Your task to perform on an android device: How do I get to the nearest Apple Store? Image 0: 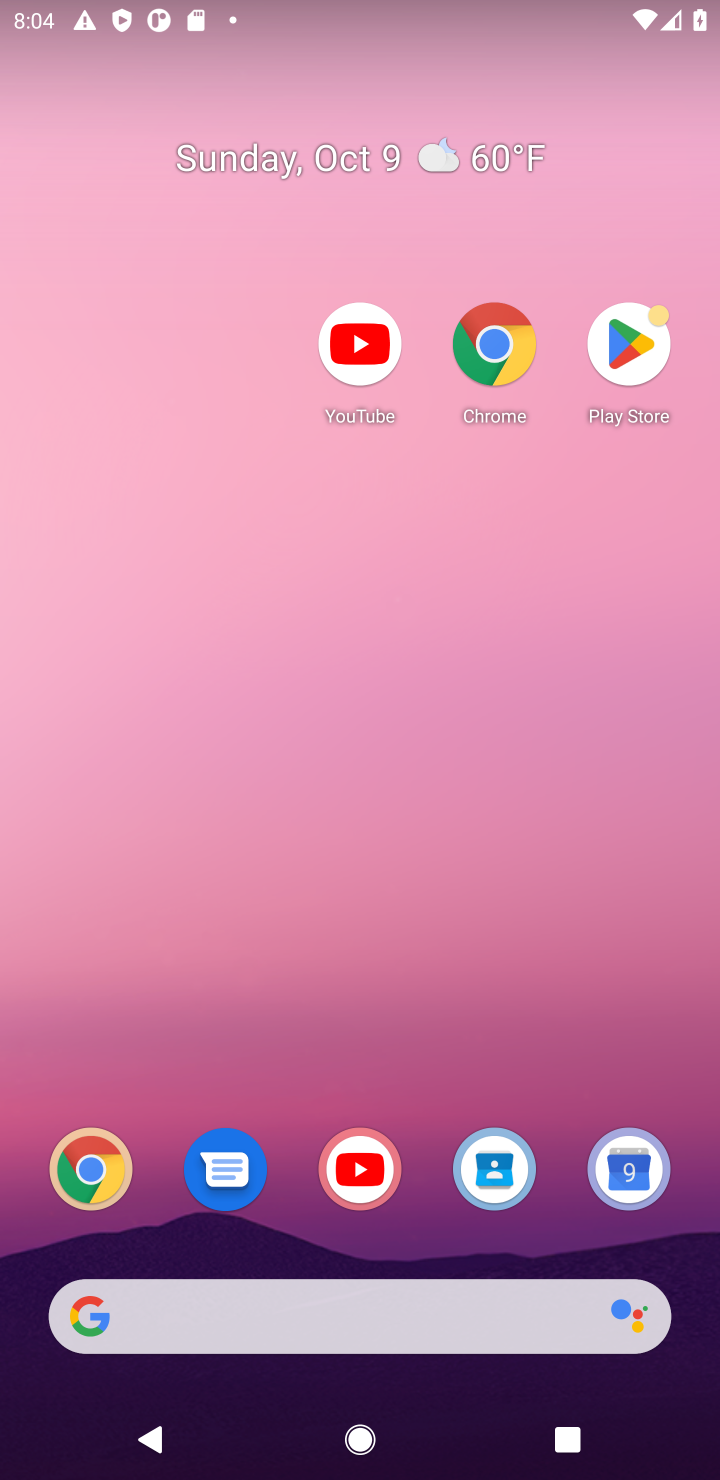
Step 0: drag from (420, 1201) to (460, 209)
Your task to perform on an android device: How do I get to the nearest Apple Store? Image 1: 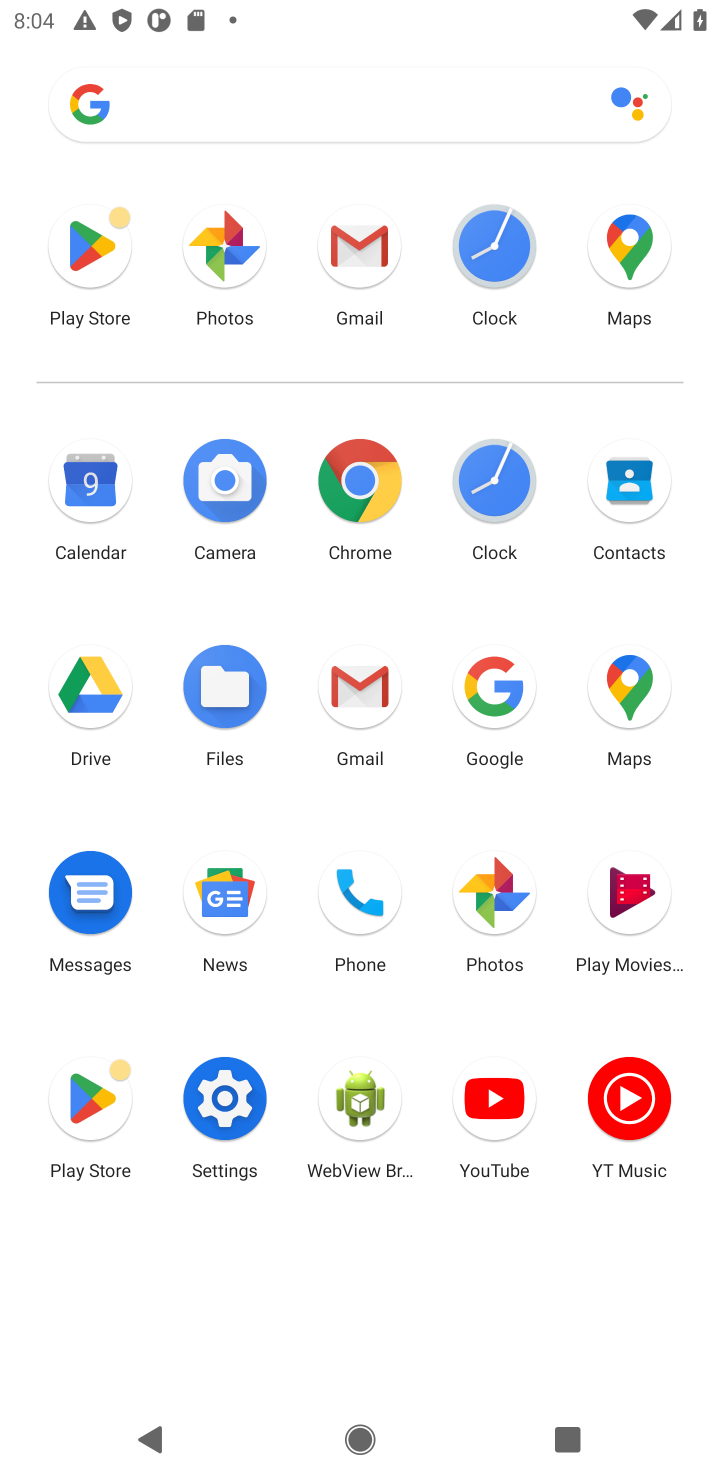
Step 1: click (356, 474)
Your task to perform on an android device: How do I get to the nearest Apple Store? Image 2: 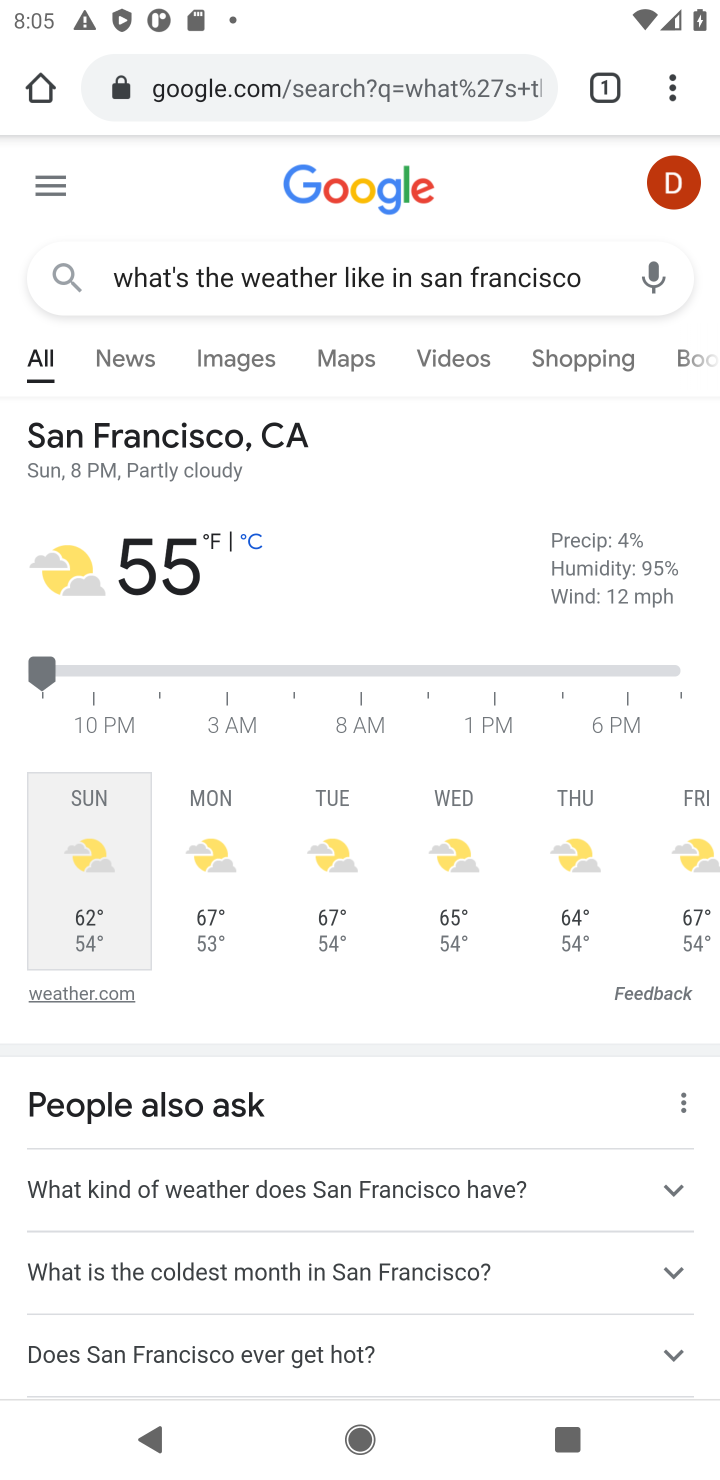
Step 2: task complete